Your task to perform on an android device: What is the recent news? Image 0: 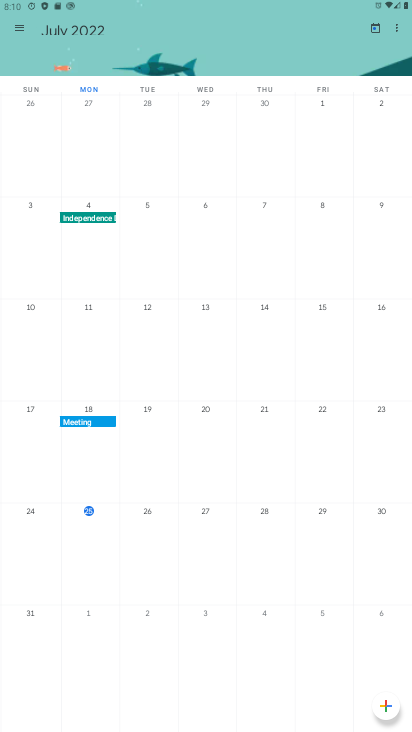
Step 0: drag from (300, 621) to (323, 269)
Your task to perform on an android device: What is the recent news? Image 1: 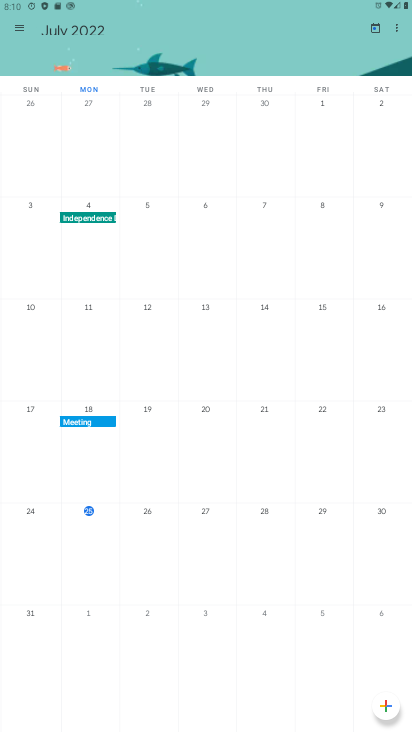
Step 1: press home button
Your task to perform on an android device: What is the recent news? Image 2: 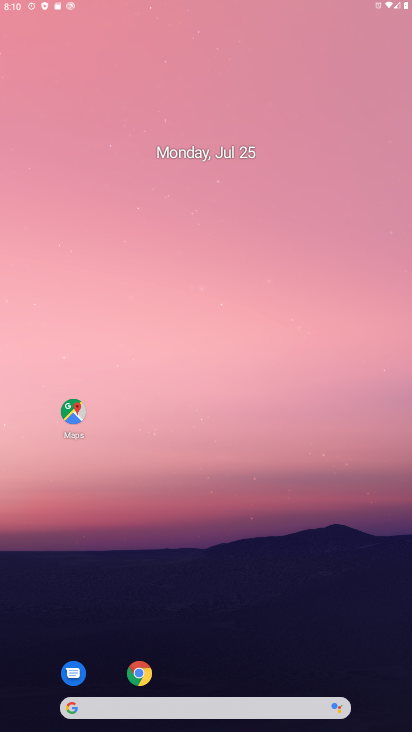
Step 2: drag from (337, 587) to (200, 22)
Your task to perform on an android device: What is the recent news? Image 3: 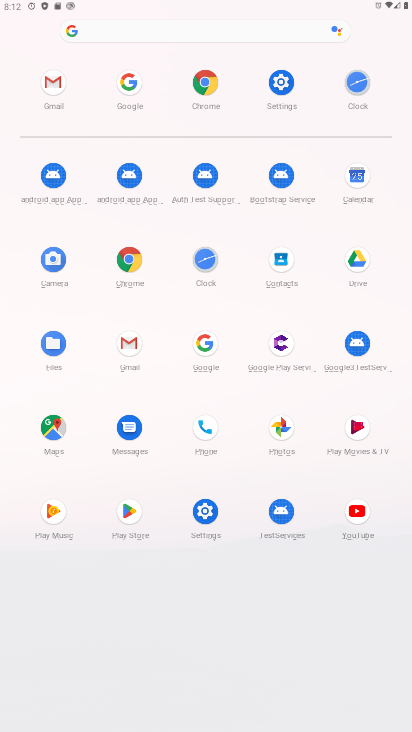
Step 3: click (210, 331)
Your task to perform on an android device: What is the recent news? Image 4: 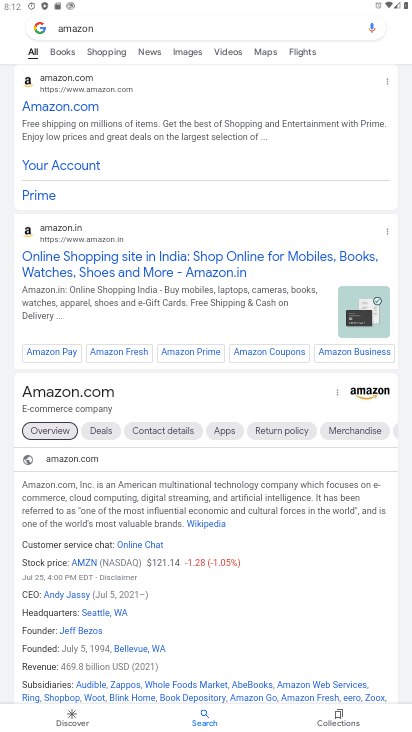
Step 4: press back button
Your task to perform on an android device: What is the recent news? Image 5: 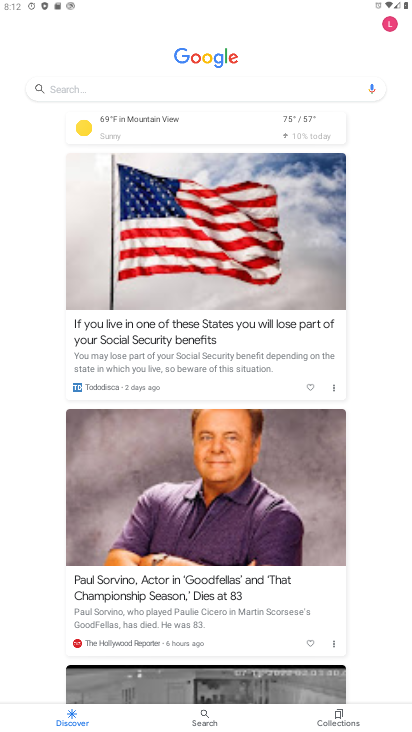
Step 5: click (78, 90)
Your task to perform on an android device: What is the recent news? Image 6: 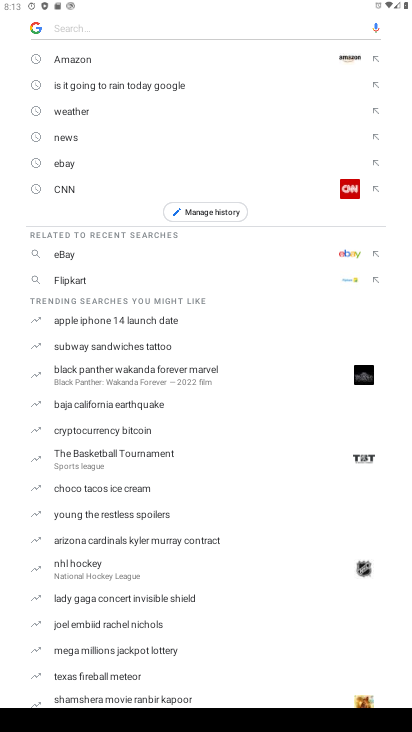
Step 6: type "What is the recent news?"
Your task to perform on an android device: What is the recent news? Image 7: 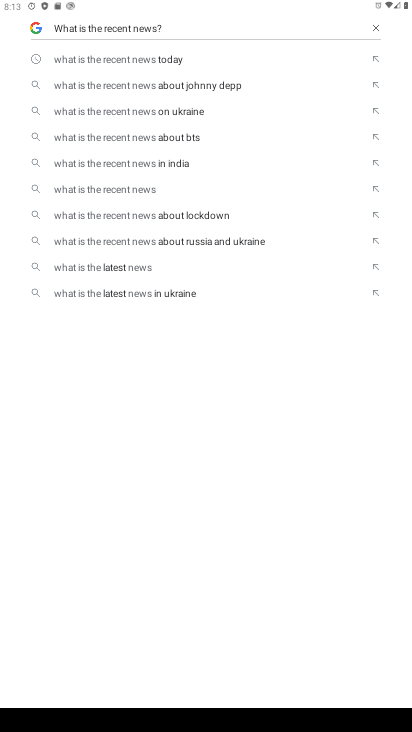
Step 7: click (104, 186)
Your task to perform on an android device: What is the recent news? Image 8: 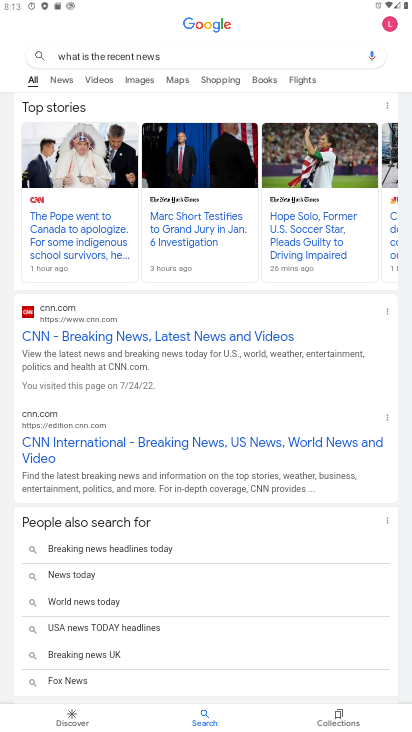
Step 8: task complete